Your task to perform on an android device: turn notification dots off Image 0: 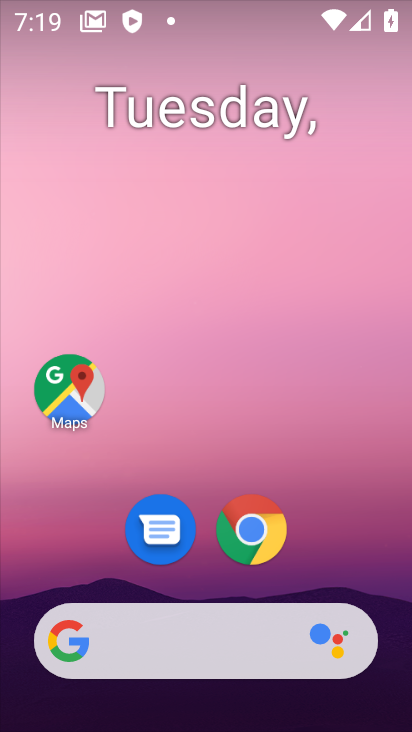
Step 0: drag from (149, 626) to (282, 199)
Your task to perform on an android device: turn notification dots off Image 1: 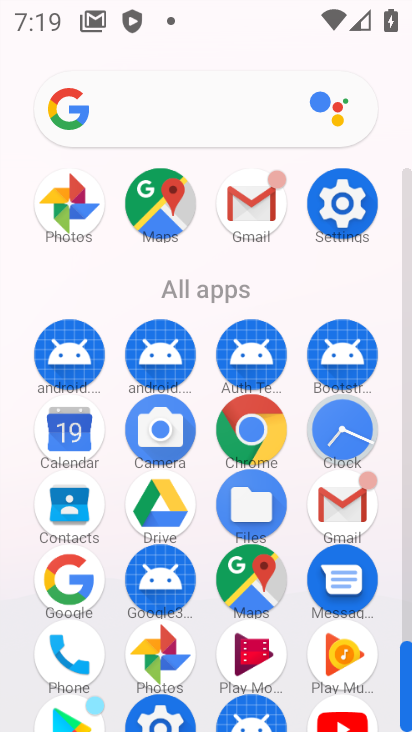
Step 1: click (350, 212)
Your task to perform on an android device: turn notification dots off Image 2: 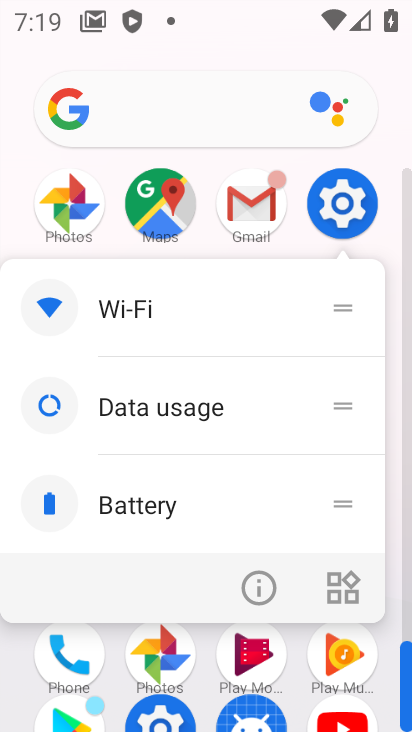
Step 2: click (343, 204)
Your task to perform on an android device: turn notification dots off Image 3: 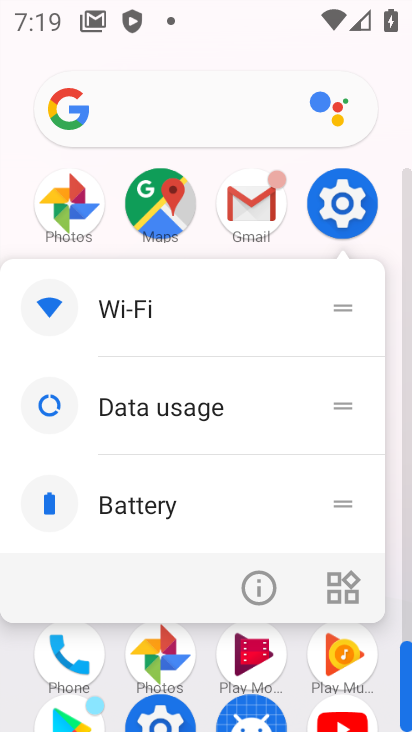
Step 3: click (342, 208)
Your task to perform on an android device: turn notification dots off Image 4: 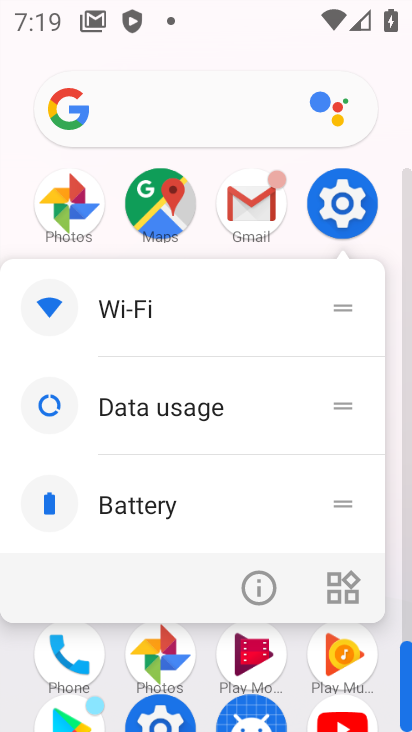
Step 4: click (332, 213)
Your task to perform on an android device: turn notification dots off Image 5: 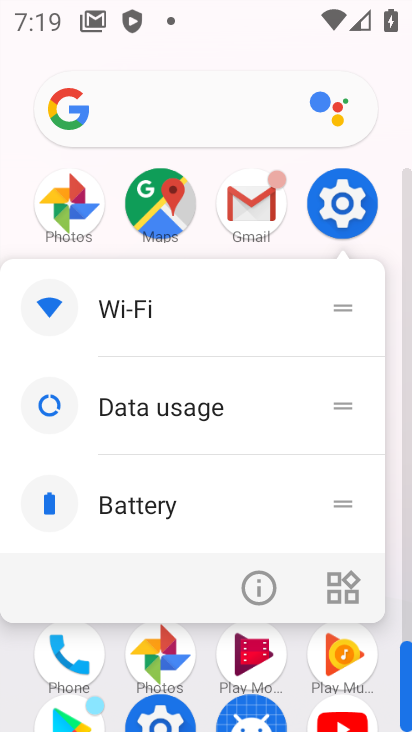
Step 5: click (343, 206)
Your task to perform on an android device: turn notification dots off Image 6: 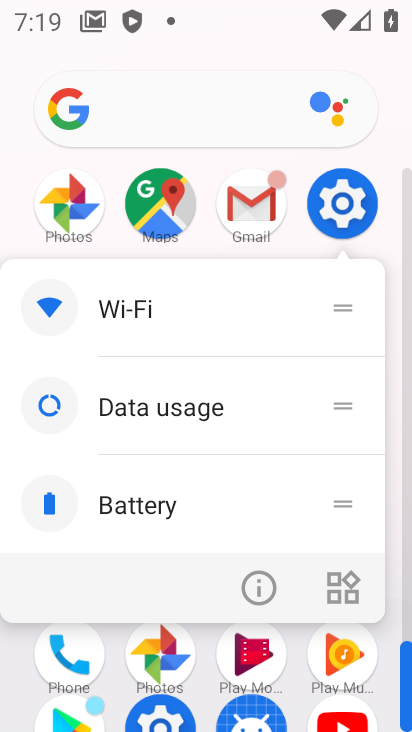
Step 6: click (340, 200)
Your task to perform on an android device: turn notification dots off Image 7: 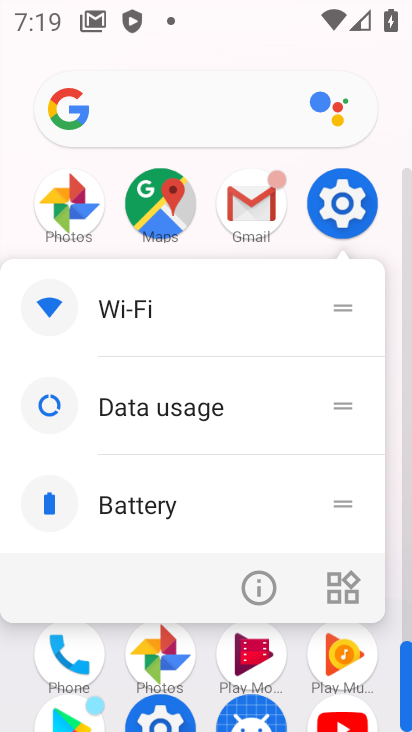
Step 7: click (345, 208)
Your task to perform on an android device: turn notification dots off Image 8: 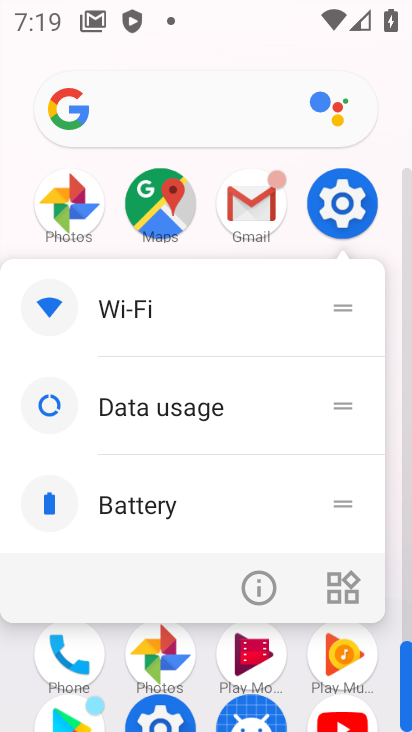
Step 8: click (344, 217)
Your task to perform on an android device: turn notification dots off Image 9: 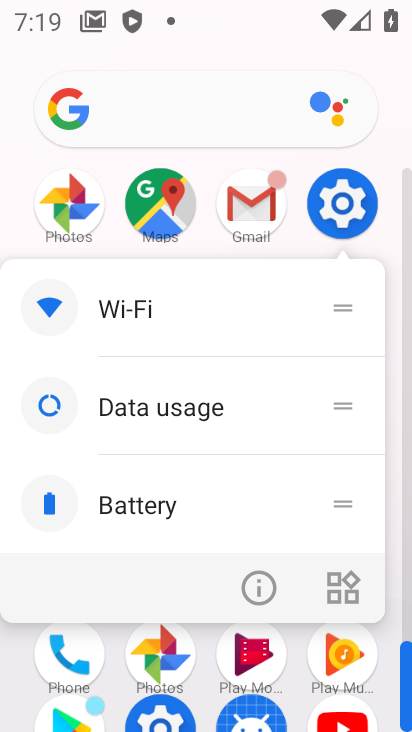
Step 9: click (349, 203)
Your task to perform on an android device: turn notification dots off Image 10: 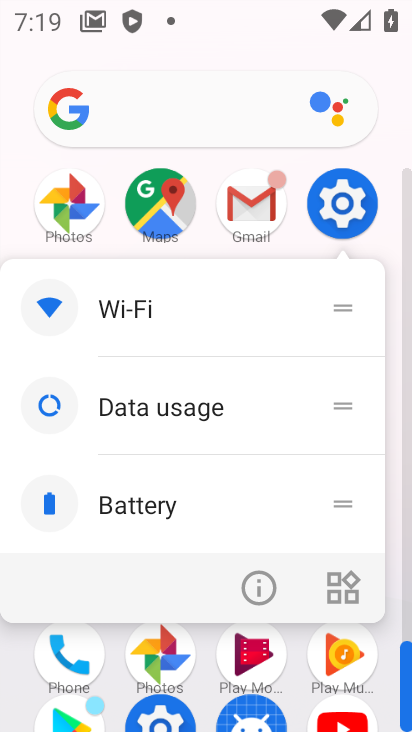
Step 10: click (349, 200)
Your task to perform on an android device: turn notification dots off Image 11: 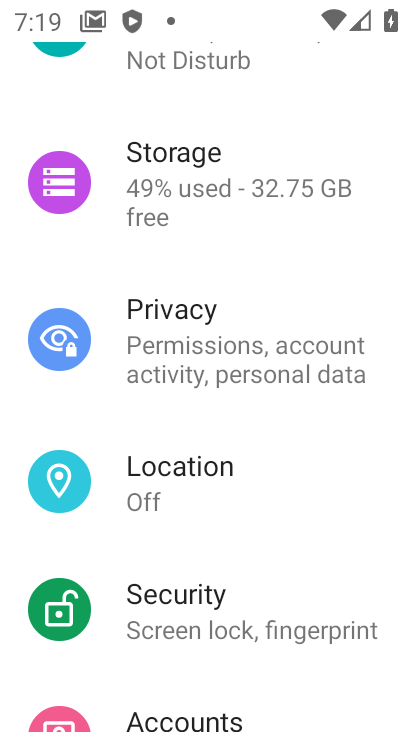
Step 11: drag from (271, 118) to (289, 514)
Your task to perform on an android device: turn notification dots off Image 12: 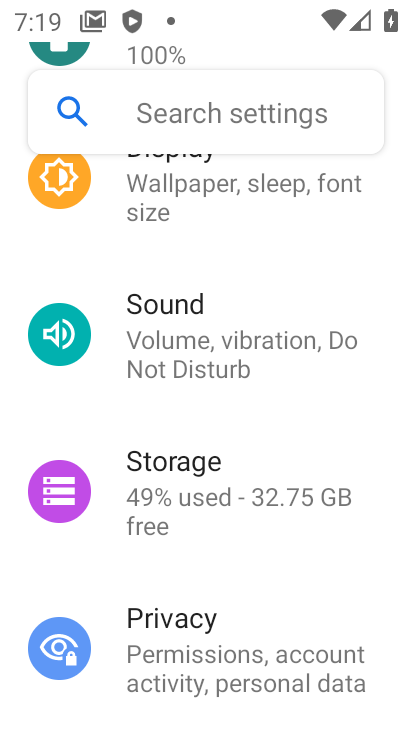
Step 12: drag from (285, 304) to (282, 650)
Your task to perform on an android device: turn notification dots off Image 13: 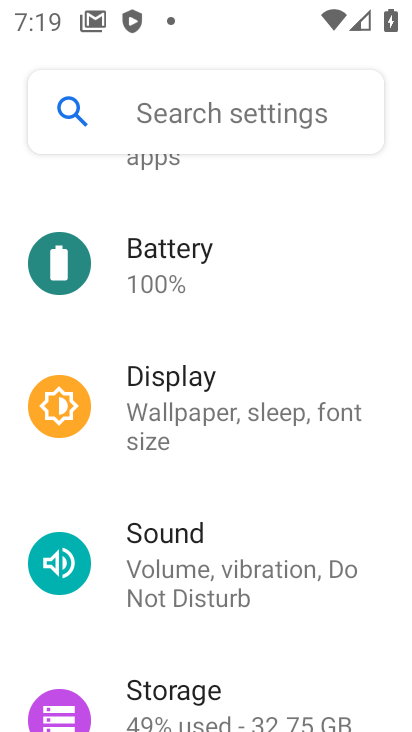
Step 13: drag from (323, 268) to (290, 584)
Your task to perform on an android device: turn notification dots off Image 14: 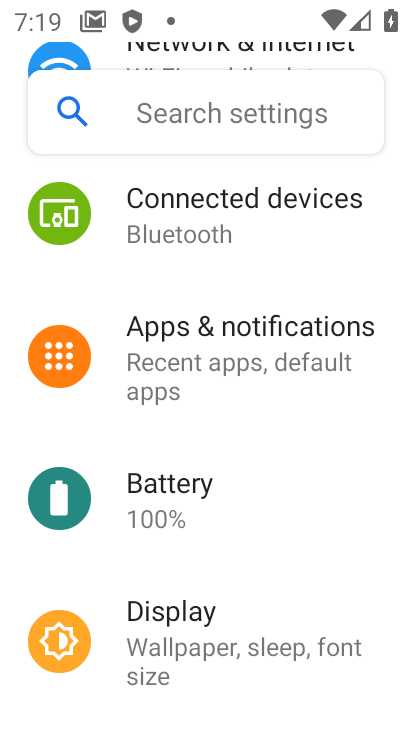
Step 14: click (260, 322)
Your task to perform on an android device: turn notification dots off Image 15: 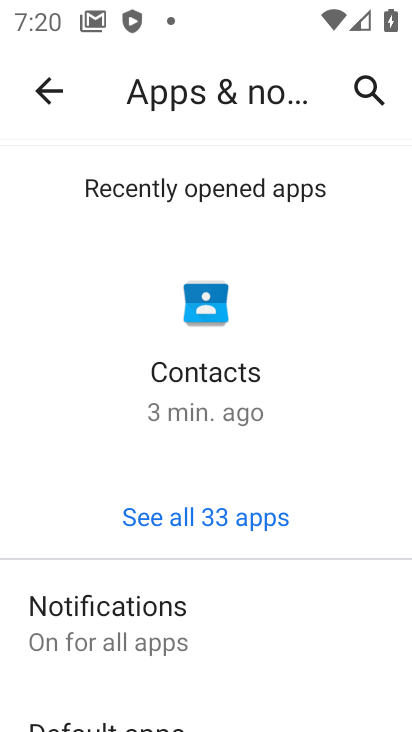
Step 15: click (131, 605)
Your task to perform on an android device: turn notification dots off Image 16: 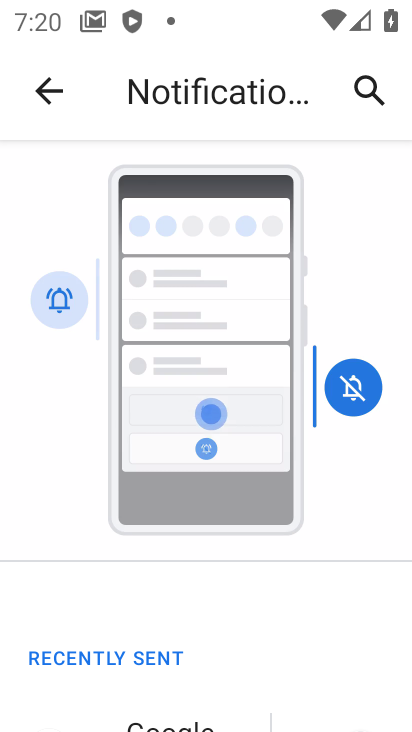
Step 16: drag from (161, 572) to (257, 111)
Your task to perform on an android device: turn notification dots off Image 17: 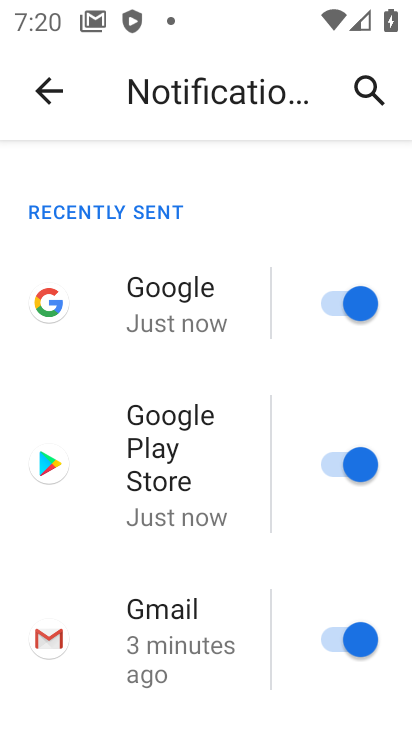
Step 17: drag from (243, 620) to (317, 55)
Your task to perform on an android device: turn notification dots off Image 18: 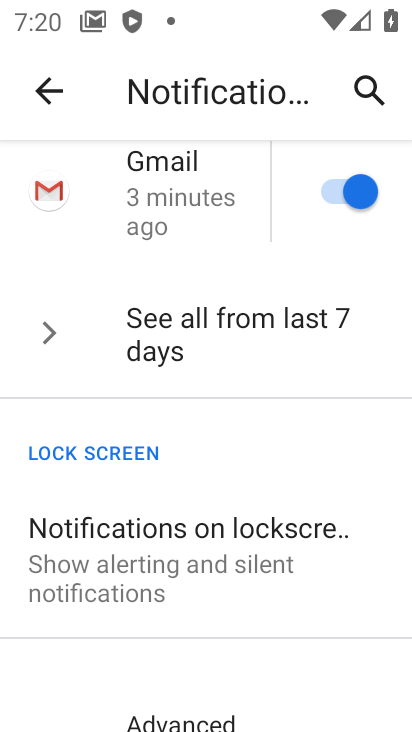
Step 18: drag from (228, 483) to (277, 116)
Your task to perform on an android device: turn notification dots off Image 19: 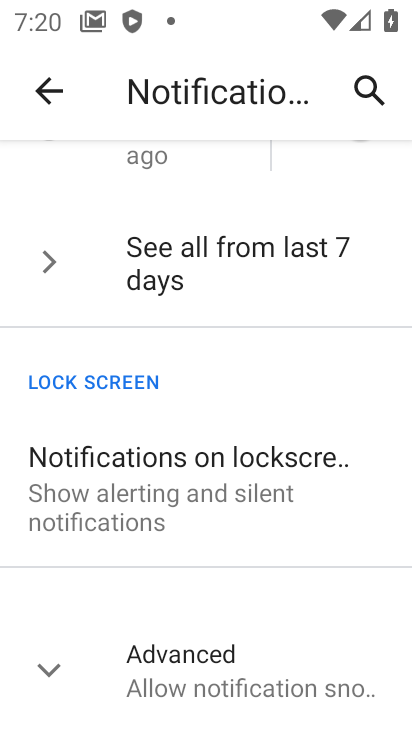
Step 19: click (111, 666)
Your task to perform on an android device: turn notification dots off Image 20: 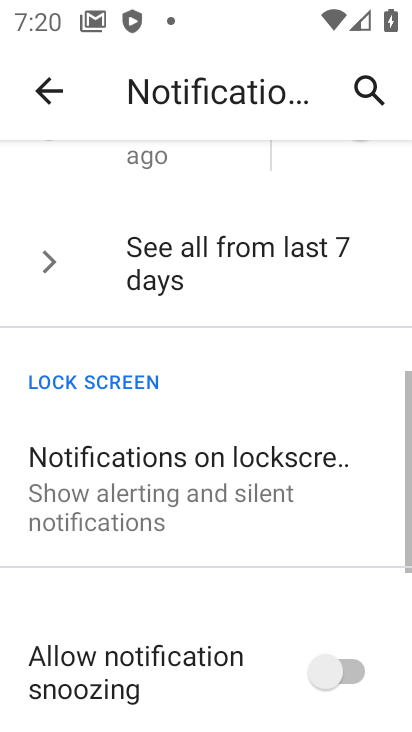
Step 20: drag from (204, 324) to (273, 78)
Your task to perform on an android device: turn notification dots off Image 21: 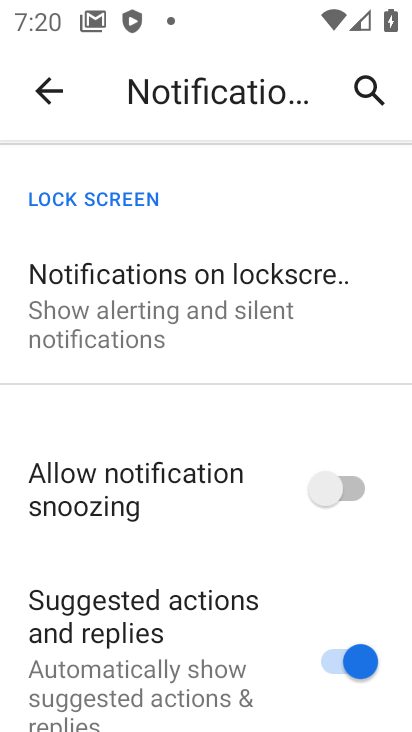
Step 21: drag from (230, 631) to (299, 129)
Your task to perform on an android device: turn notification dots off Image 22: 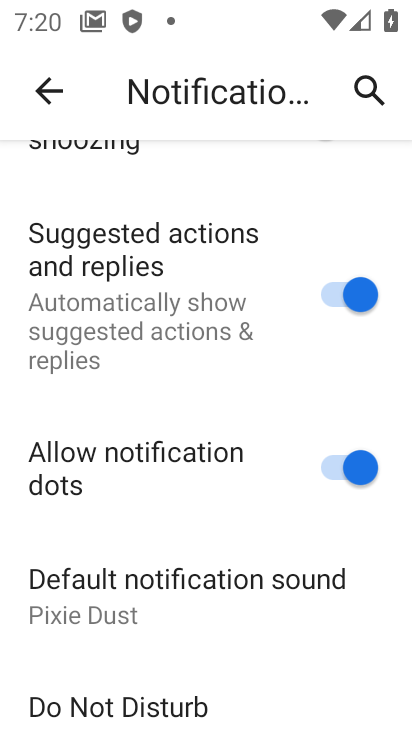
Step 22: click (329, 464)
Your task to perform on an android device: turn notification dots off Image 23: 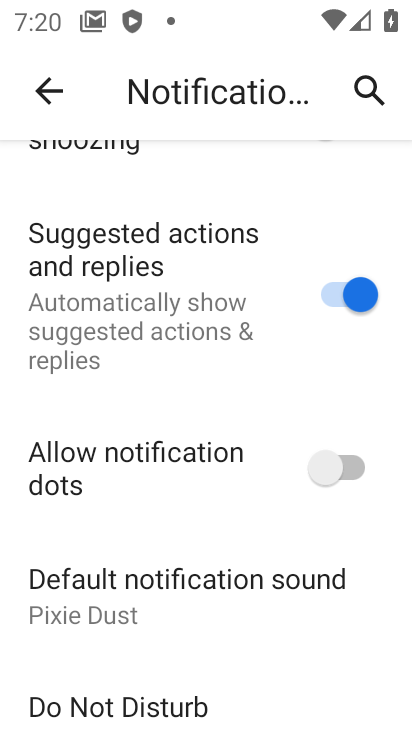
Step 23: task complete